Your task to perform on an android device: Open Android settings Image 0: 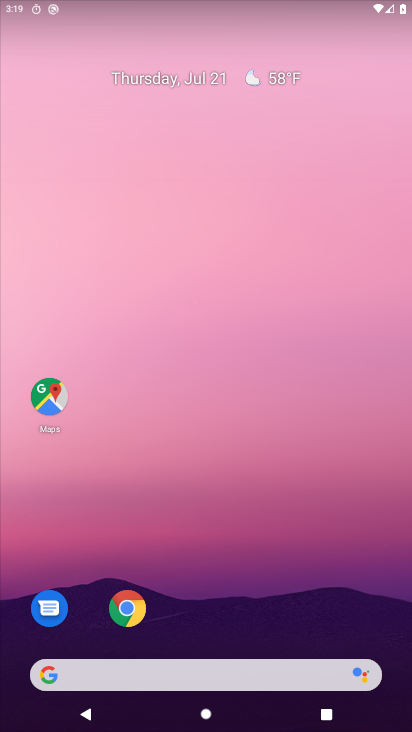
Step 0: press home button
Your task to perform on an android device: Open Android settings Image 1: 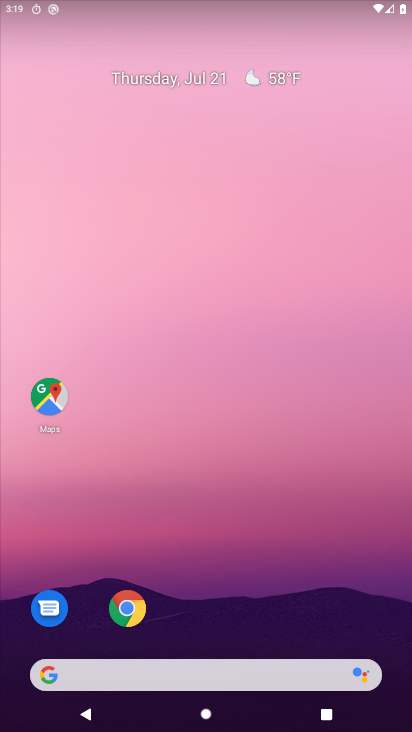
Step 1: drag from (192, 628) to (252, 161)
Your task to perform on an android device: Open Android settings Image 2: 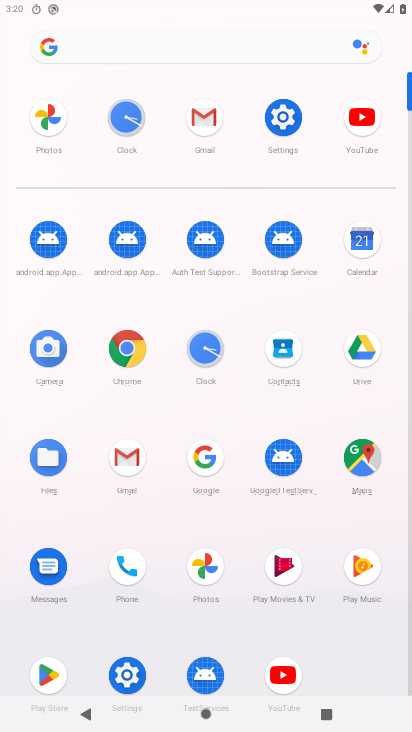
Step 2: click (280, 107)
Your task to perform on an android device: Open Android settings Image 3: 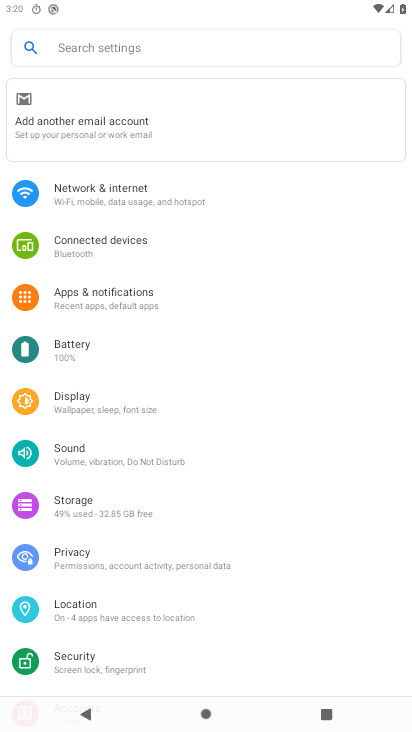
Step 3: drag from (143, 659) to (165, 200)
Your task to perform on an android device: Open Android settings Image 4: 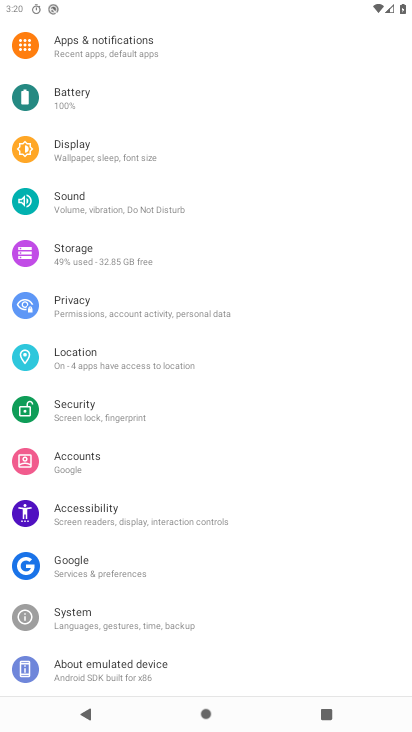
Step 4: click (186, 669)
Your task to perform on an android device: Open Android settings Image 5: 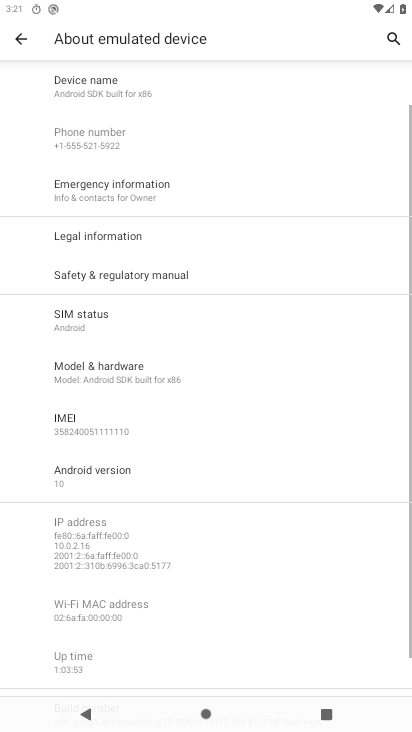
Step 5: task complete